Your task to perform on an android device: Search for Italian restaurants on Maps Image 0: 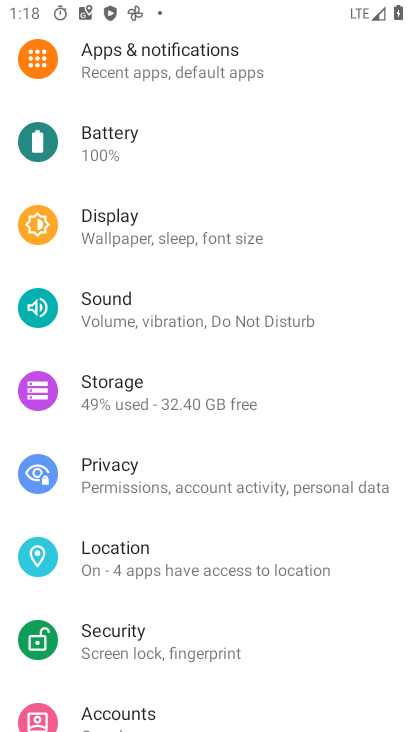
Step 0: press home button
Your task to perform on an android device: Search for Italian restaurants on Maps Image 1: 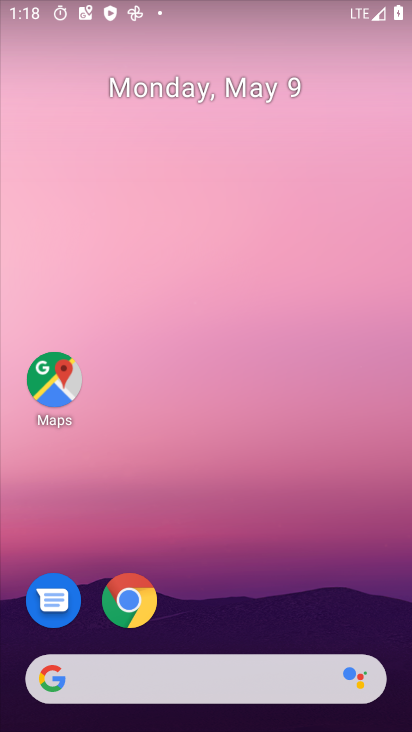
Step 1: drag from (241, 598) to (234, 236)
Your task to perform on an android device: Search for Italian restaurants on Maps Image 2: 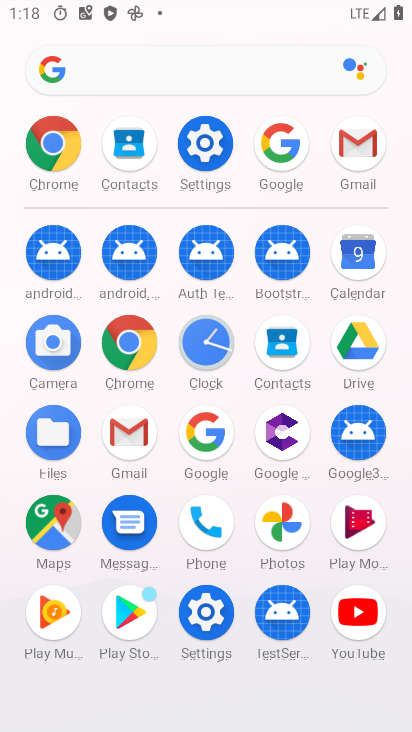
Step 2: click (66, 528)
Your task to perform on an android device: Search for Italian restaurants on Maps Image 3: 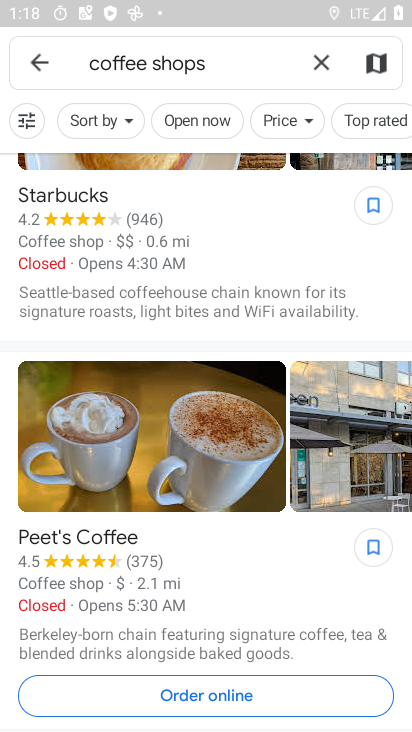
Step 3: click (330, 59)
Your task to perform on an android device: Search for Italian restaurants on Maps Image 4: 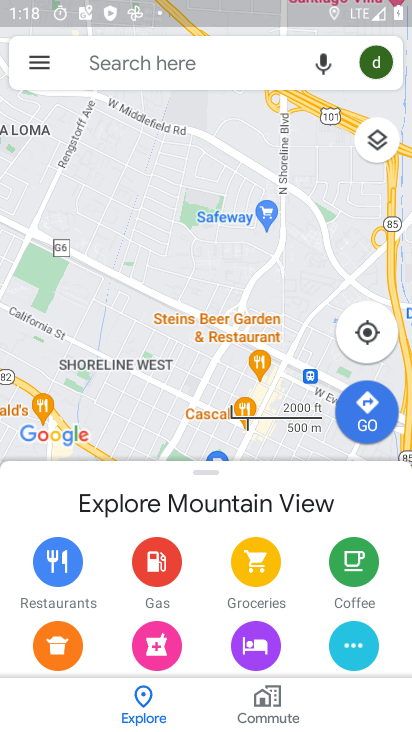
Step 4: click (287, 64)
Your task to perform on an android device: Search for Italian restaurants on Maps Image 5: 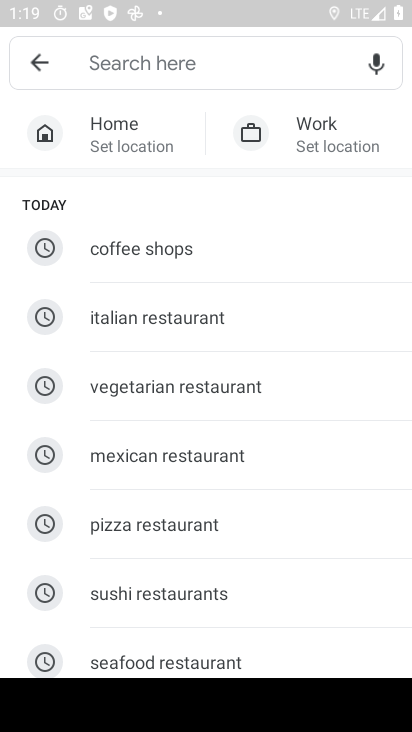
Step 5: click (189, 337)
Your task to perform on an android device: Search for Italian restaurants on Maps Image 6: 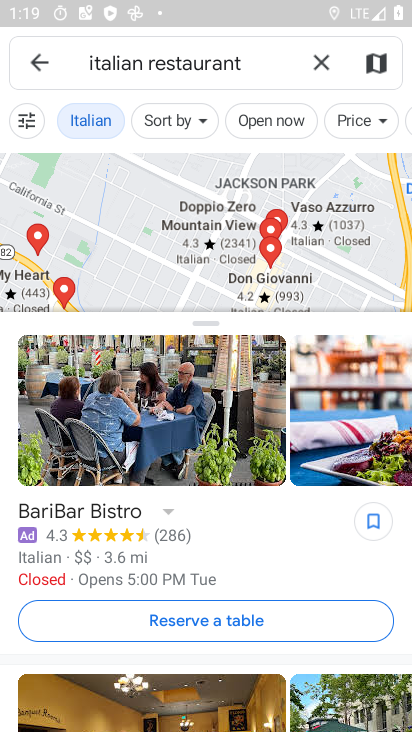
Step 6: task complete